Your task to perform on an android device: What's on my calendar today? Image 0: 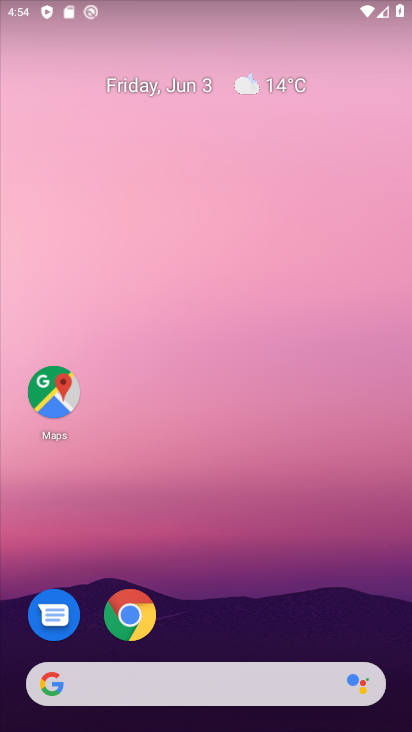
Step 0: drag from (252, 500) to (265, 40)
Your task to perform on an android device: What's on my calendar today? Image 1: 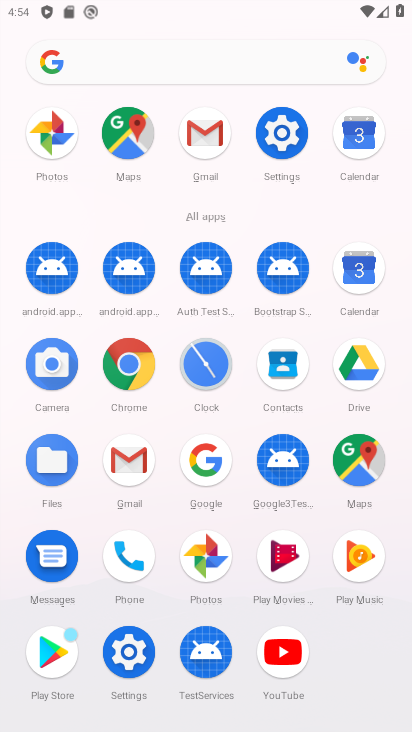
Step 1: click (353, 282)
Your task to perform on an android device: What's on my calendar today? Image 2: 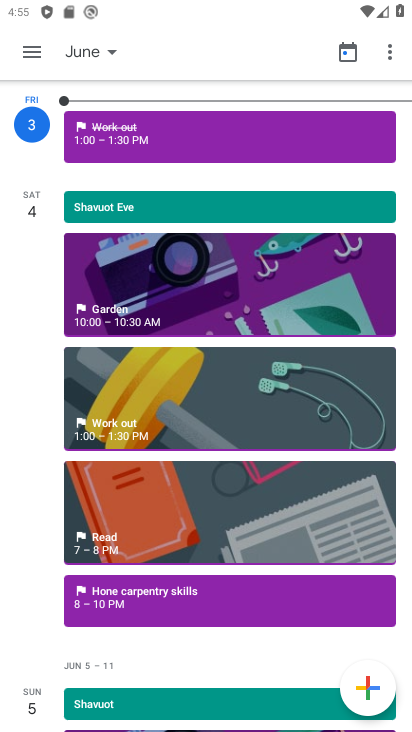
Step 2: drag from (229, 190) to (228, 405)
Your task to perform on an android device: What's on my calendar today? Image 3: 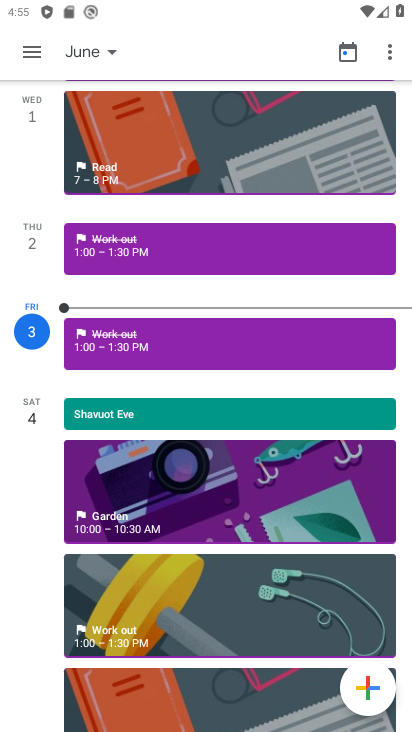
Step 3: click (103, 344)
Your task to perform on an android device: What's on my calendar today? Image 4: 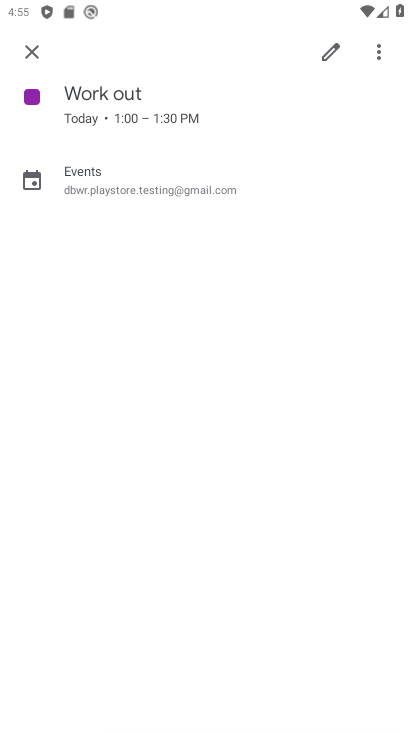
Step 4: task complete